Your task to perform on an android device: change notifications settings Image 0: 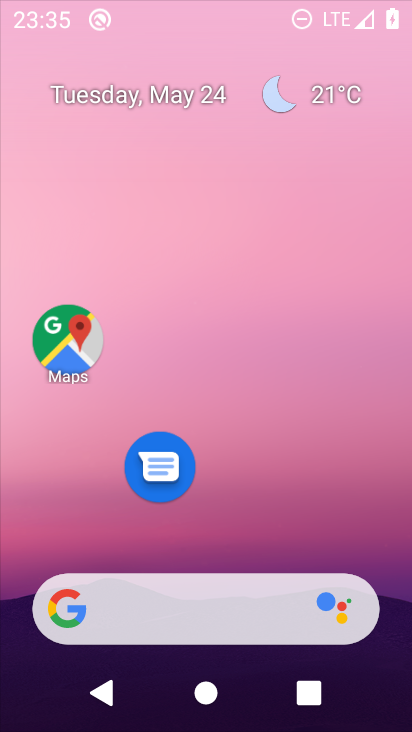
Step 0: click (228, 169)
Your task to perform on an android device: change notifications settings Image 1: 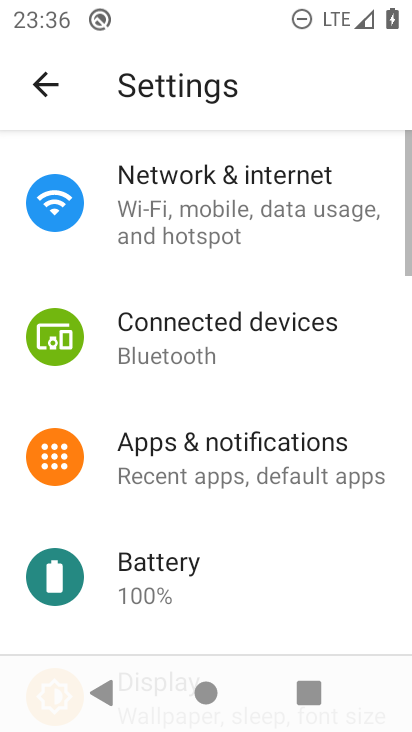
Step 1: click (220, 479)
Your task to perform on an android device: change notifications settings Image 2: 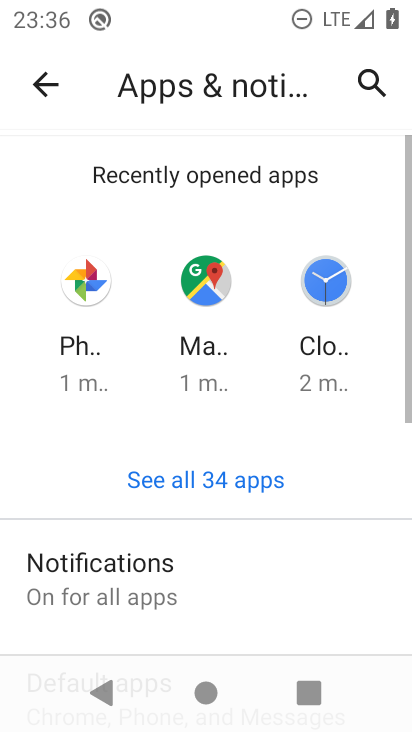
Step 2: drag from (236, 531) to (221, 4)
Your task to perform on an android device: change notifications settings Image 3: 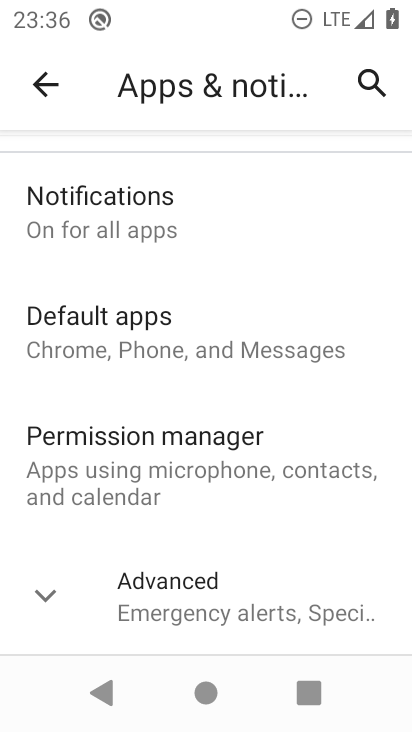
Step 3: drag from (109, 265) to (172, 520)
Your task to perform on an android device: change notifications settings Image 4: 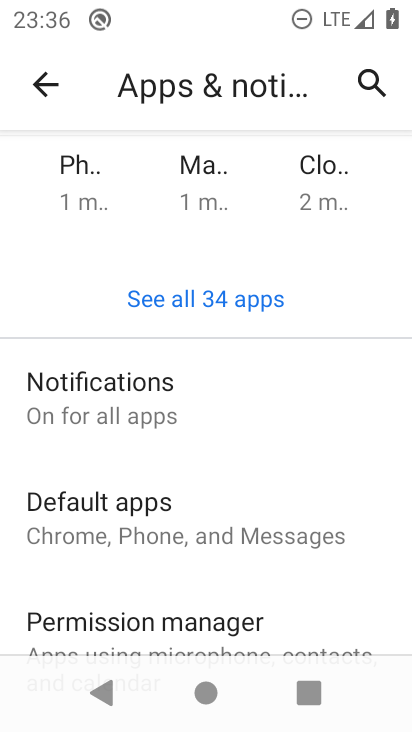
Step 4: click (166, 406)
Your task to perform on an android device: change notifications settings Image 5: 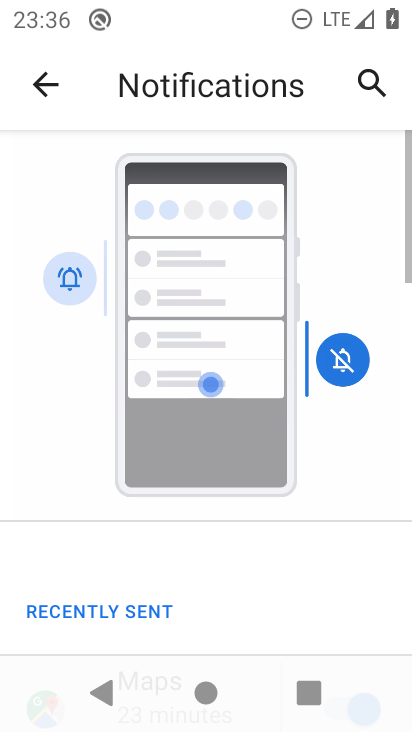
Step 5: drag from (308, 545) to (269, 165)
Your task to perform on an android device: change notifications settings Image 6: 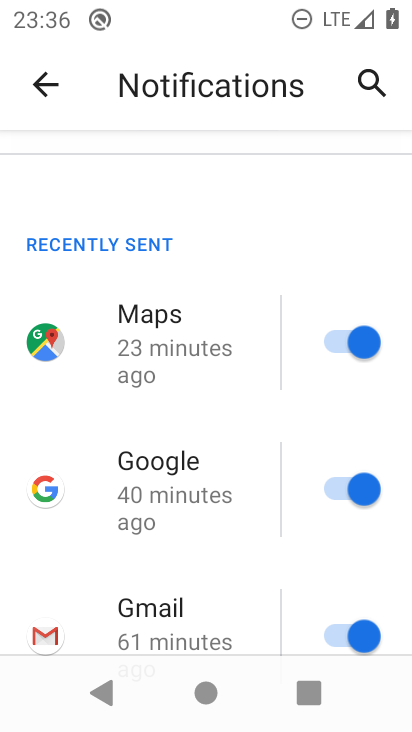
Step 6: drag from (204, 595) to (193, 172)
Your task to perform on an android device: change notifications settings Image 7: 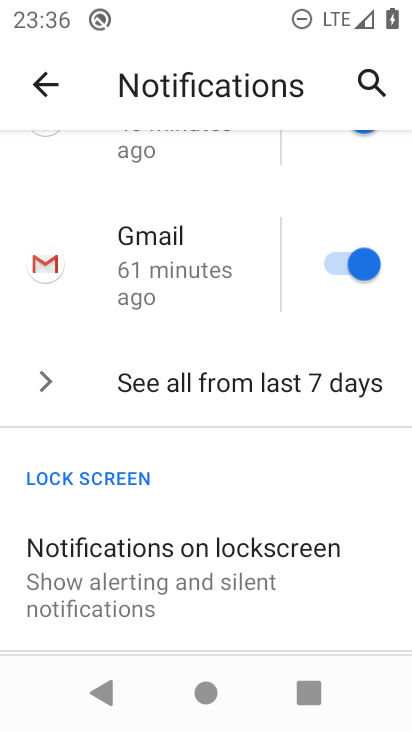
Step 7: click (341, 256)
Your task to perform on an android device: change notifications settings Image 8: 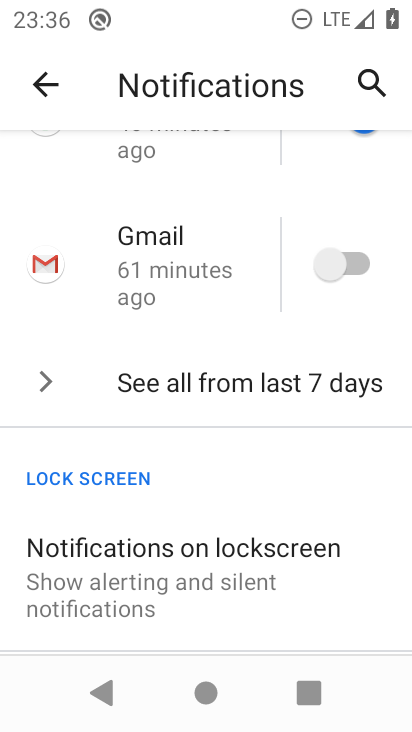
Step 8: task complete